Your task to perform on an android device: Search for pizza restaurants on Maps Image 0: 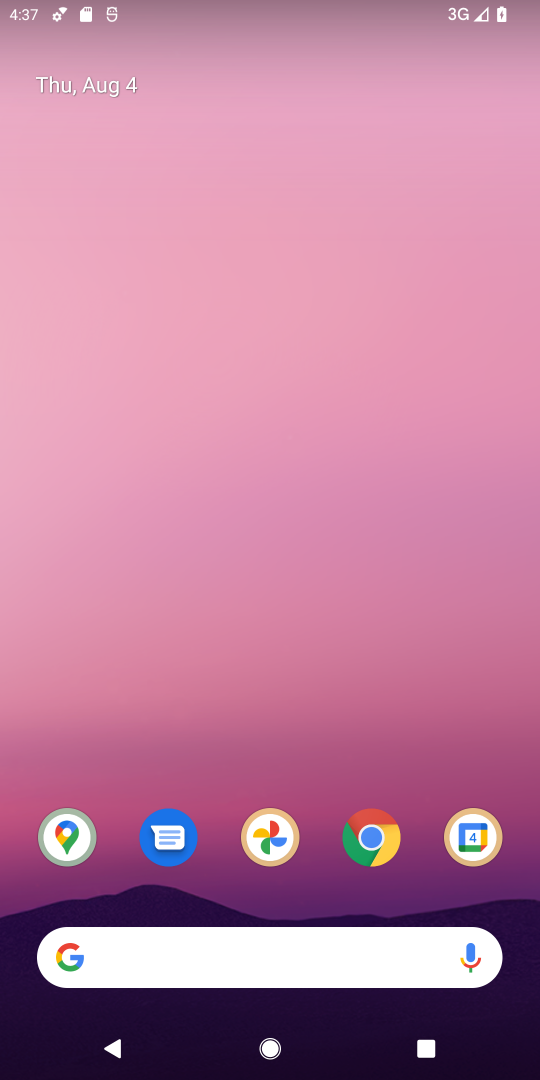
Step 0: click (48, 841)
Your task to perform on an android device: Search for pizza restaurants on Maps Image 1: 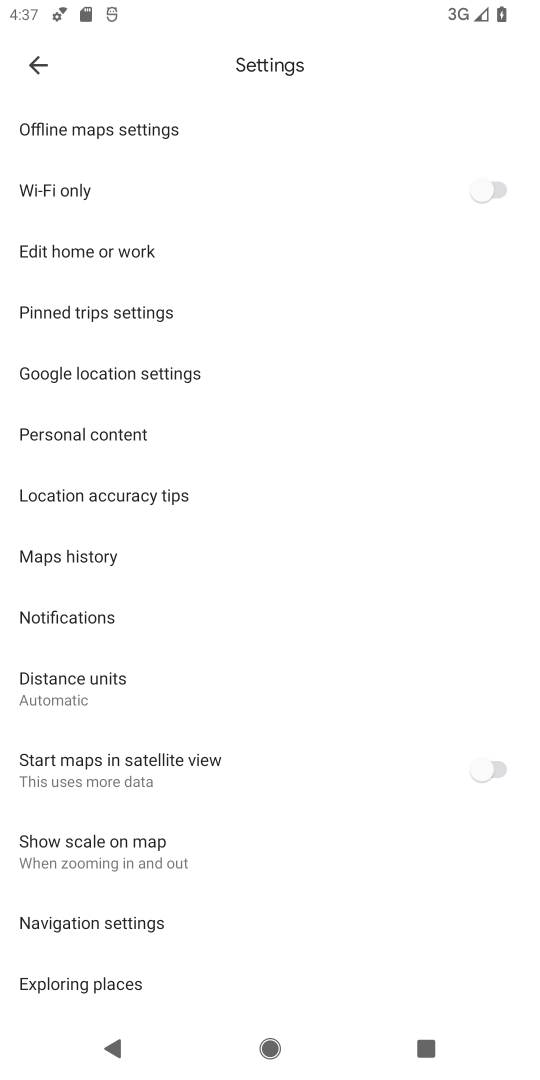
Step 1: click (35, 43)
Your task to perform on an android device: Search for pizza restaurants on Maps Image 2: 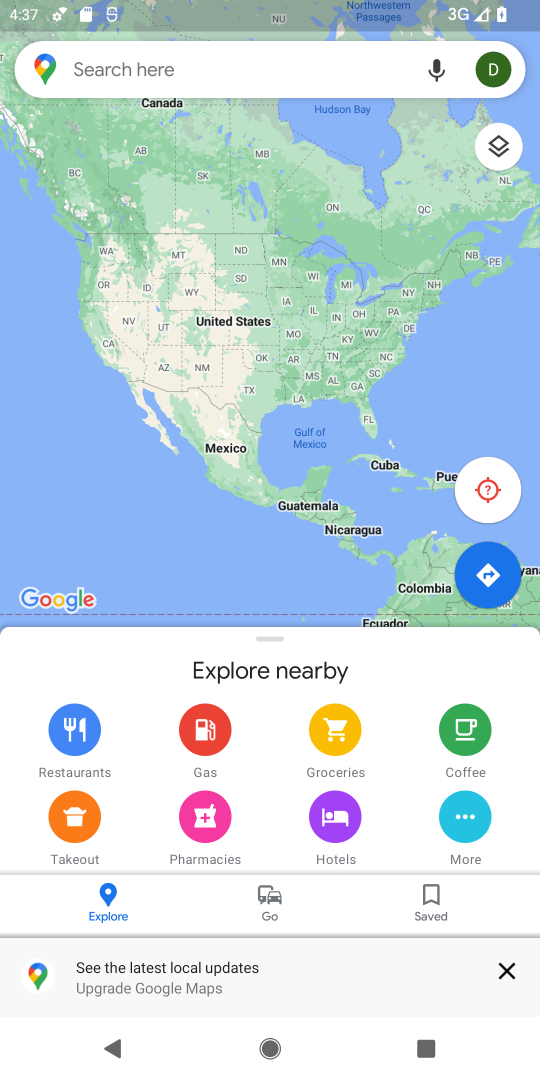
Step 2: click (183, 63)
Your task to perform on an android device: Search for pizza restaurants on Maps Image 3: 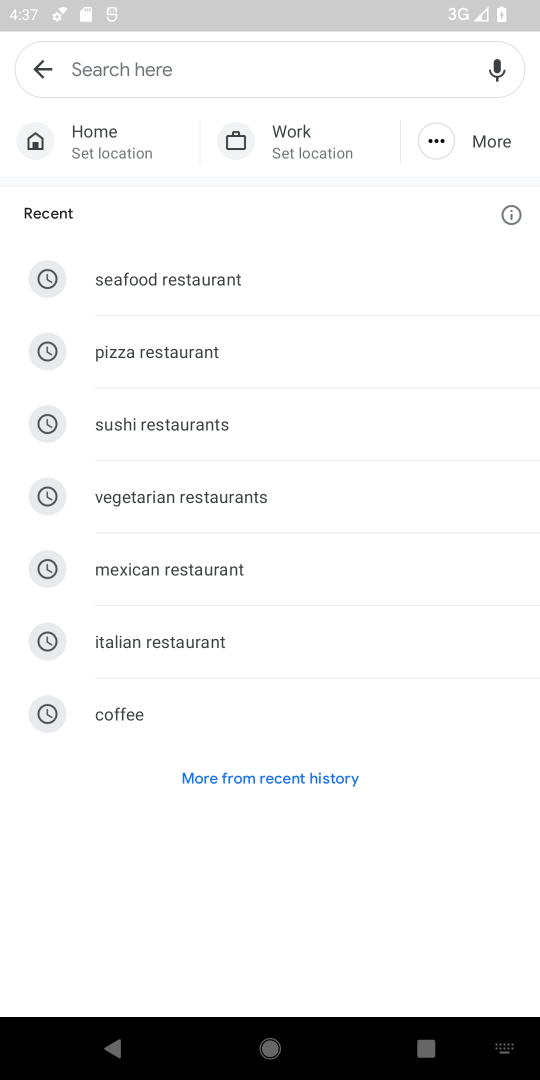
Step 3: type "pizza restaurants"
Your task to perform on an android device: Search for pizza restaurants on Maps Image 4: 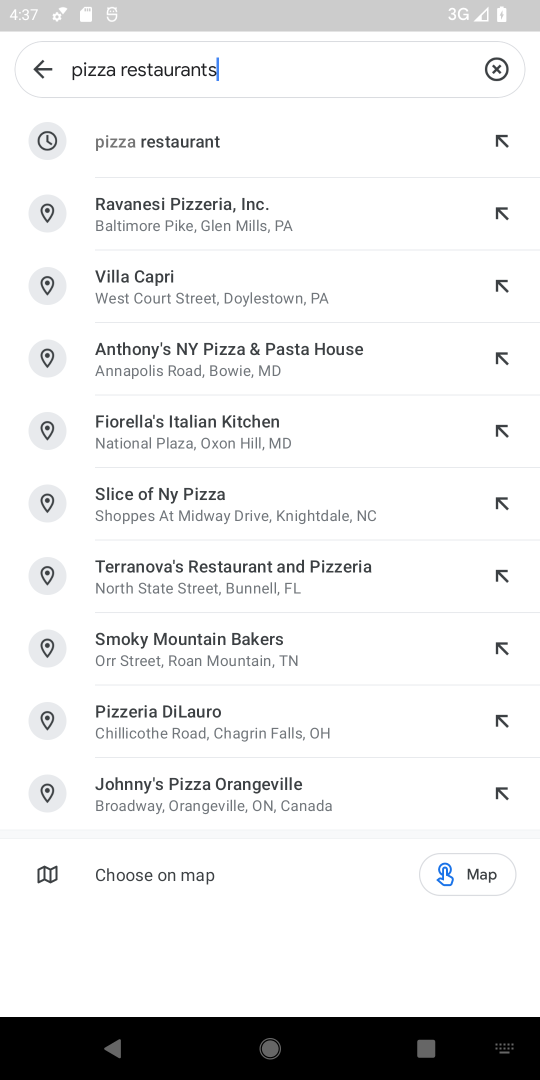
Step 4: click (254, 142)
Your task to perform on an android device: Search for pizza restaurants on Maps Image 5: 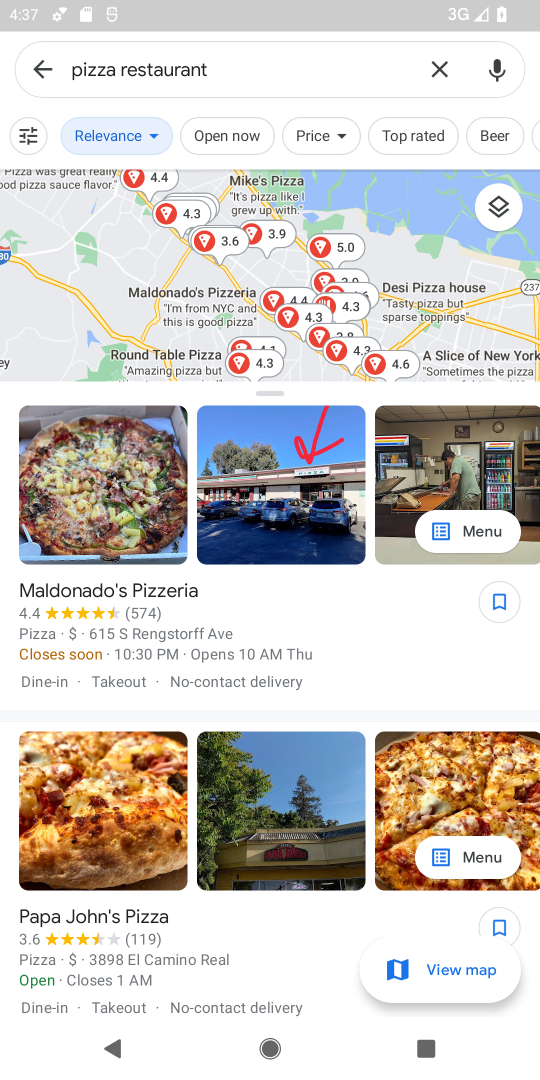
Step 5: task complete